Your task to perform on an android device: turn off airplane mode Image 0: 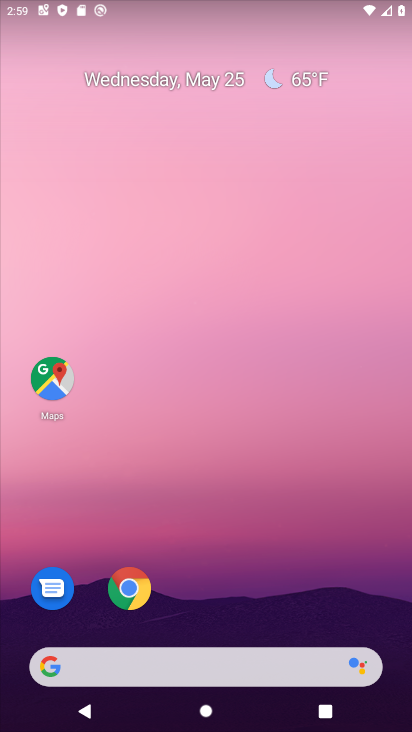
Step 0: drag from (169, 574) to (207, 183)
Your task to perform on an android device: turn off airplane mode Image 1: 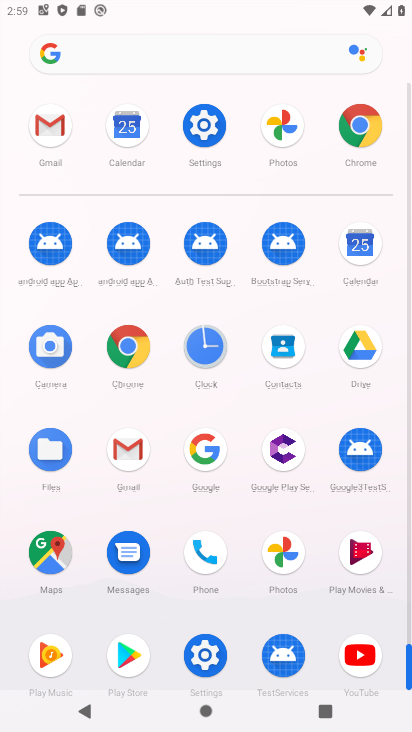
Step 1: click (205, 119)
Your task to perform on an android device: turn off airplane mode Image 2: 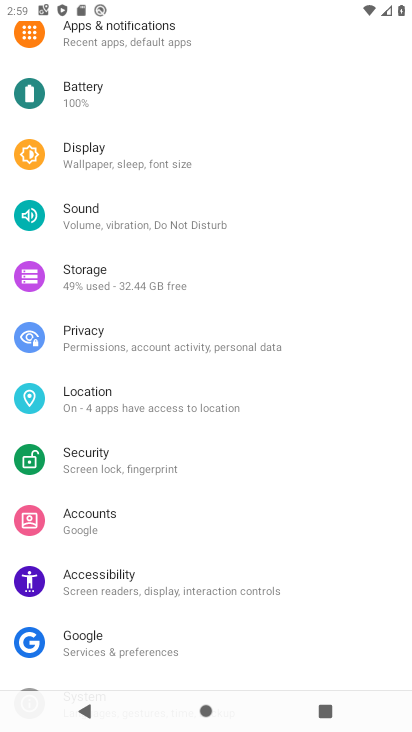
Step 2: drag from (123, 111) to (128, 628)
Your task to perform on an android device: turn off airplane mode Image 3: 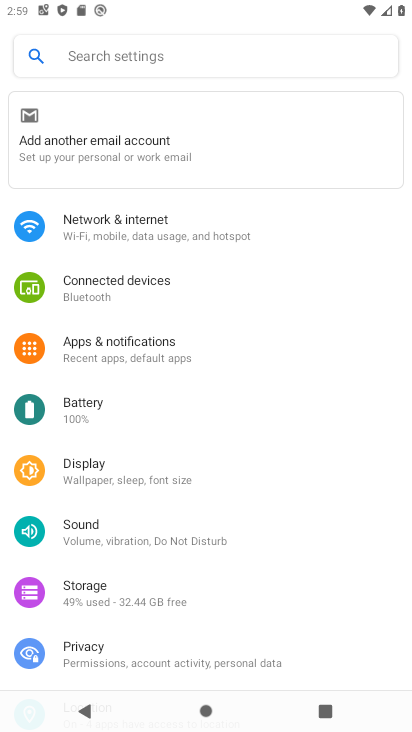
Step 3: click (152, 237)
Your task to perform on an android device: turn off airplane mode Image 4: 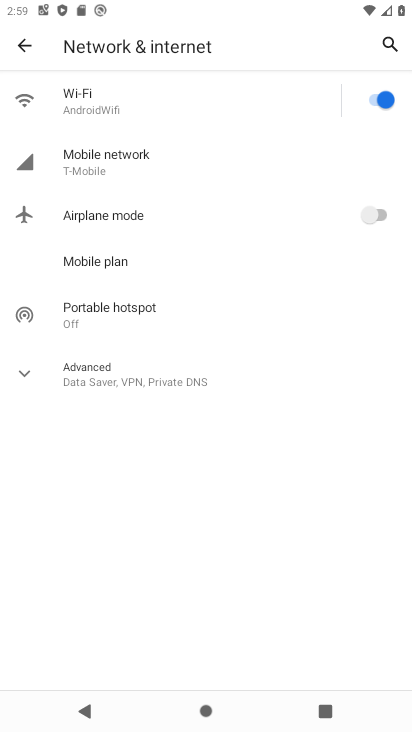
Step 4: task complete